Your task to perform on an android device: change timer sound Image 0: 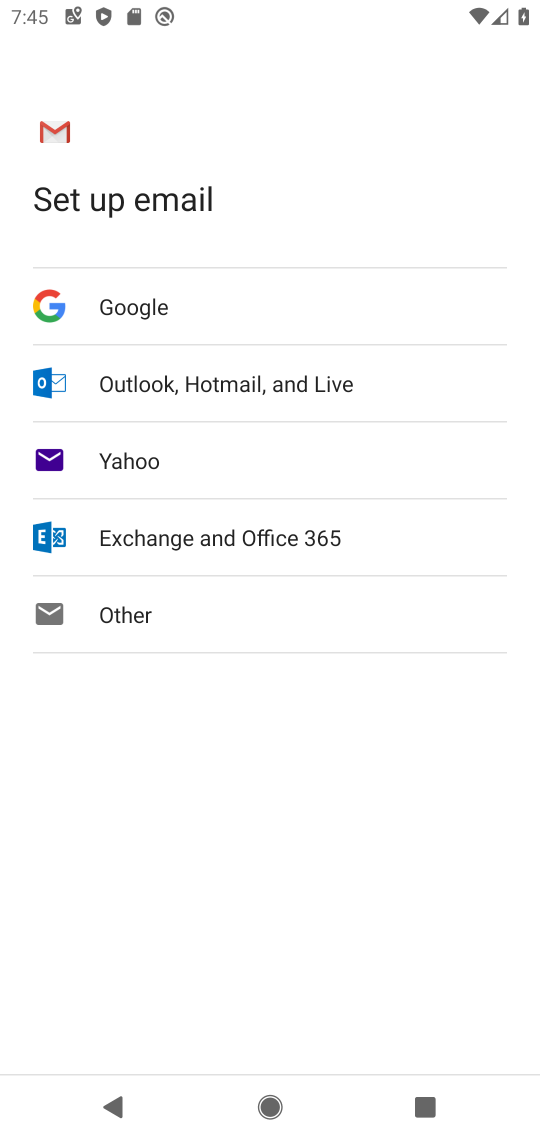
Step 0: press home button
Your task to perform on an android device: change timer sound Image 1: 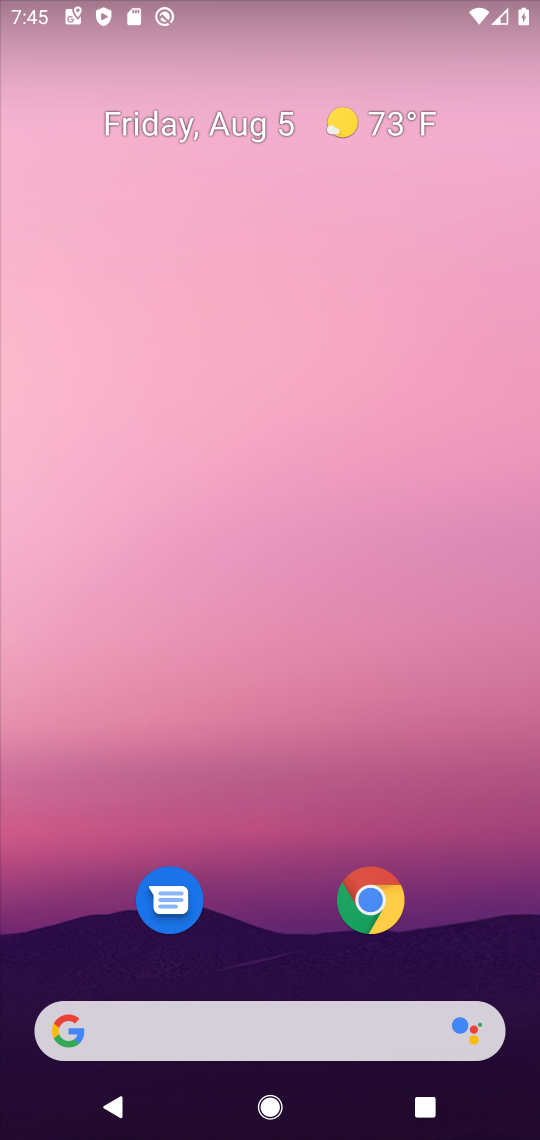
Step 1: drag from (234, 1007) to (329, 367)
Your task to perform on an android device: change timer sound Image 2: 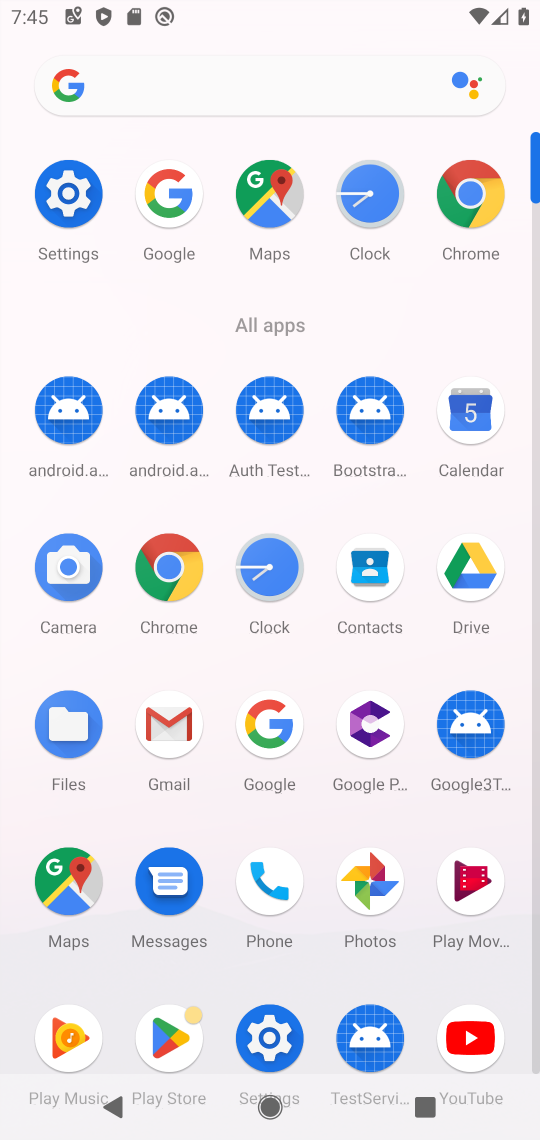
Step 2: click (79, 184)
Your task to perform on an android device: change timer sound Image 3: 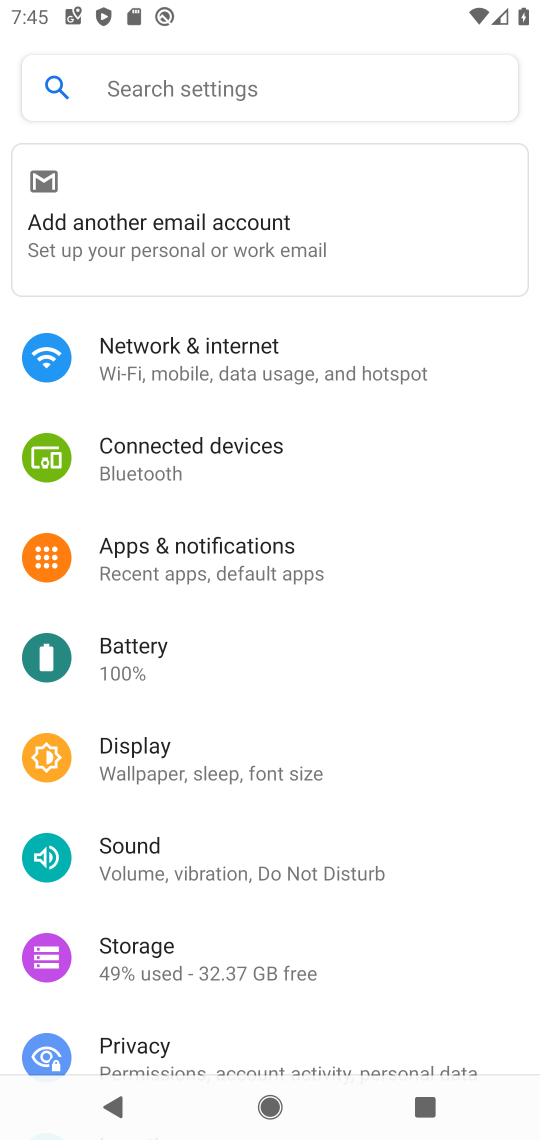
Step 3: click (136, 843)
Your task to perform on an android device: change timer sound Image 4: 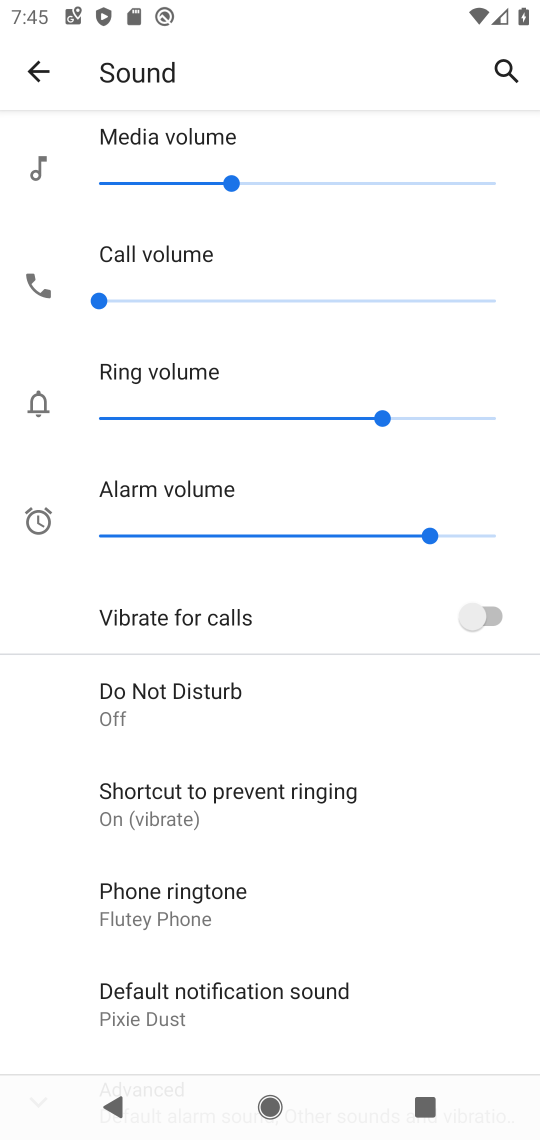
Step 4: drag from (162, 1001) to (196, 388)
Your task to perform on an android device: change timer sound Image 5: 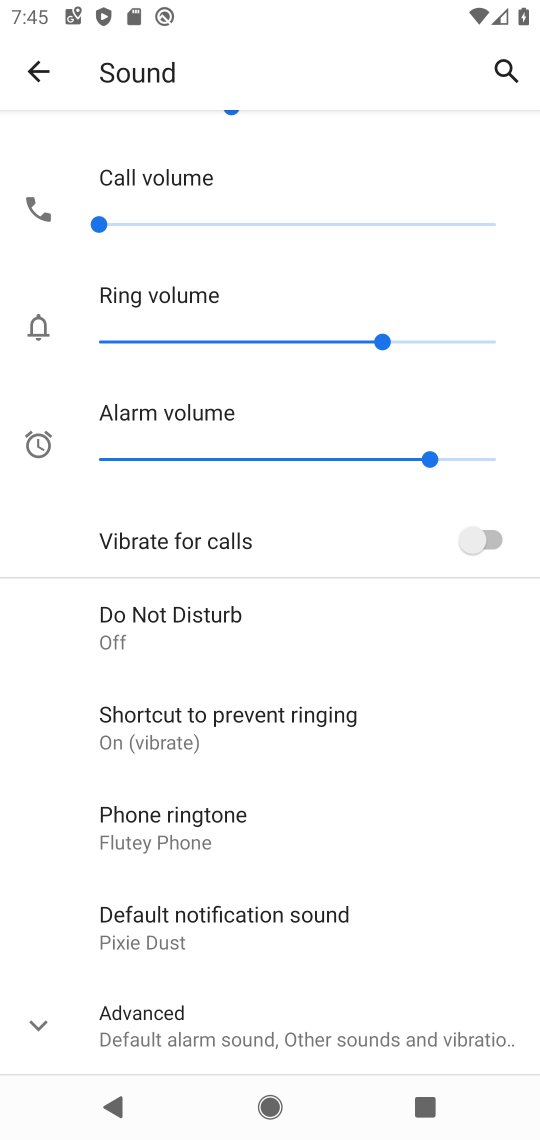
Step 5: click (165, 1025)
Your task to perform on an android device: change timer sound Image 6: 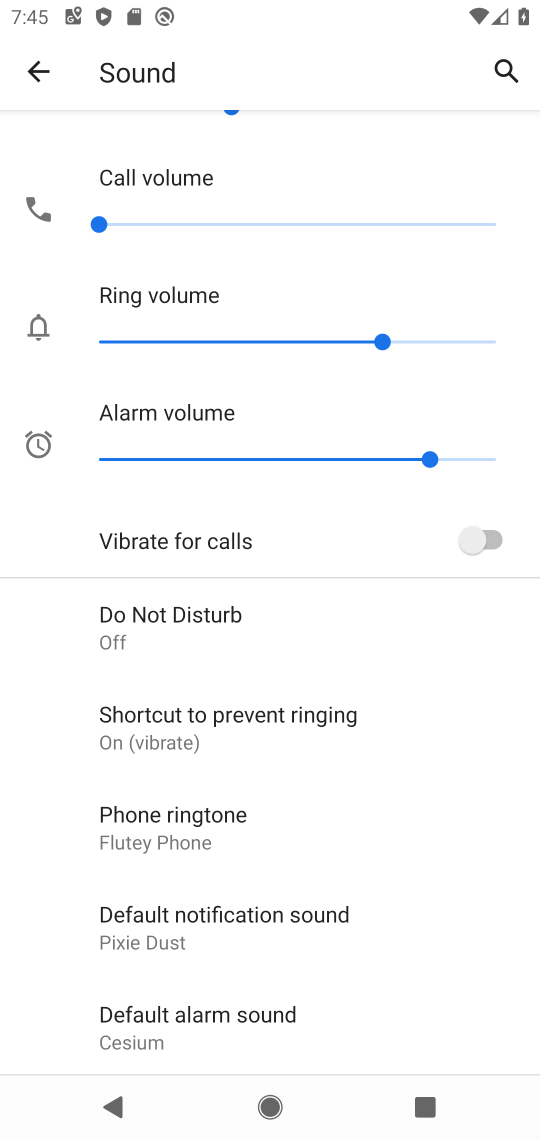
Step 6: task complete